Your task to perform on an android device: Go to privacy settings Image 0: 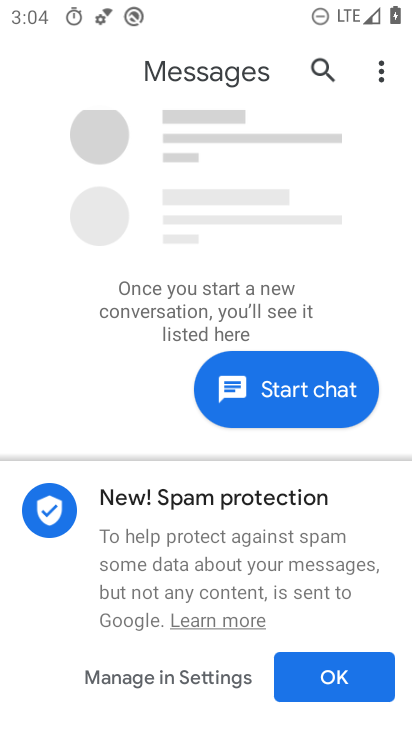
Step 0: press back button
Your task to perform on an android device: Go to privacy settings Image 1: 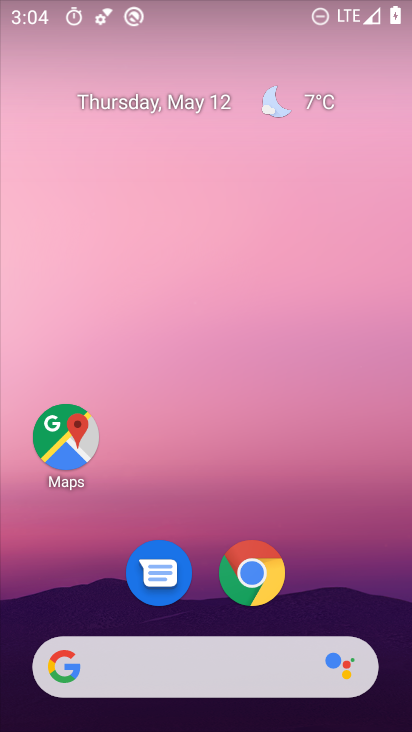
Step 1: drag from (341, 596) to (401, 527)
Your task to perform on an android device: Go to privacy settings Image 2: 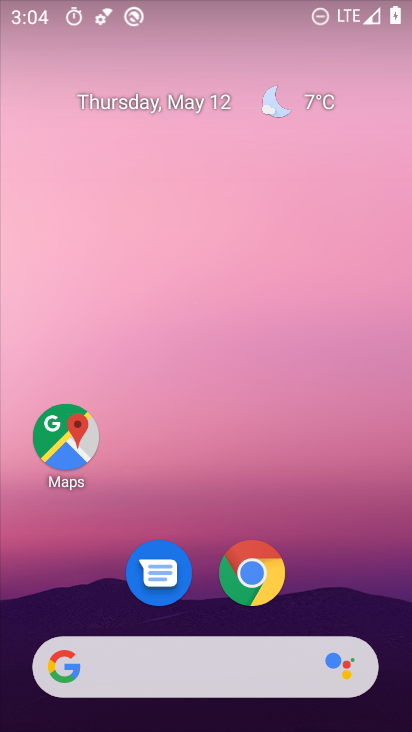
Step 2: drag from (309, 587) to (73, 4)
Your task to perform on an android device: Go to privacy settings Image 3: 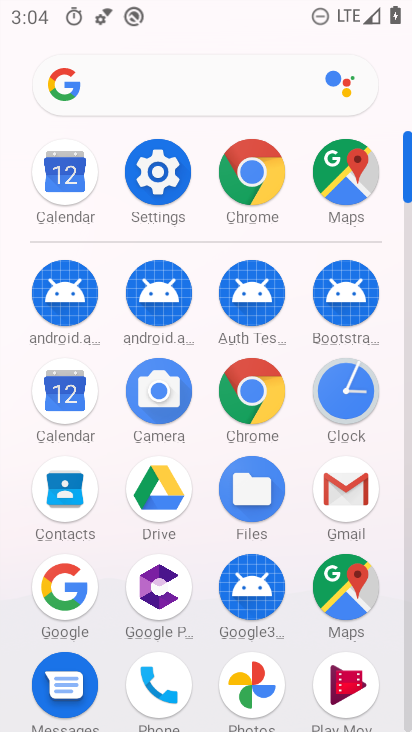
Step 3: click (154, 169)
Your task to perform on an android device: Go to privacy settings Image 4: 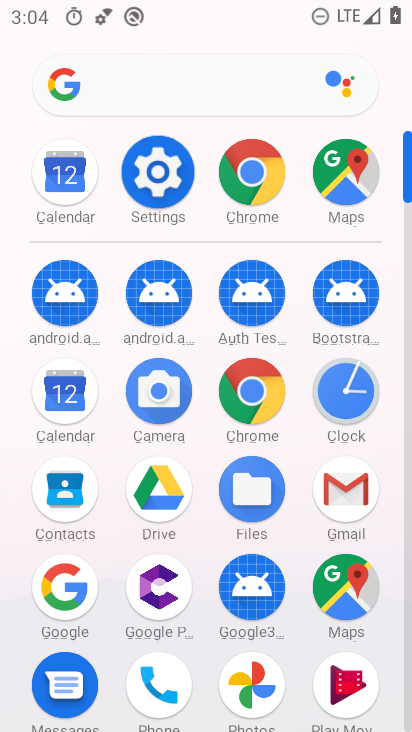
Step 4: click (155, 169)
Your task to perform on an android device: Go to privacy settings Image 5: 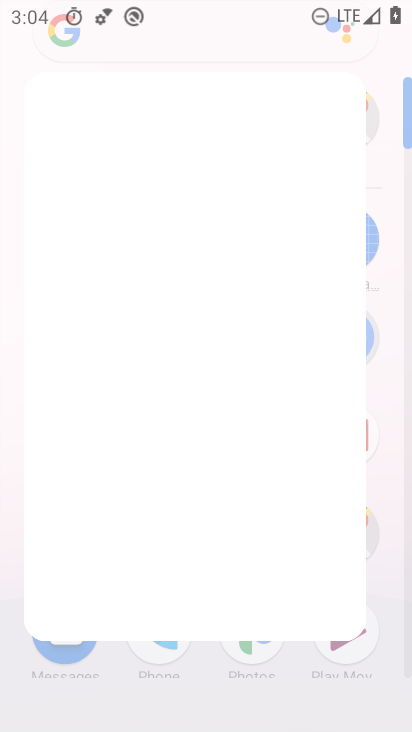
Step 5: click (155, 169)
Your task to perform on an android device: Go to privacy settings Image 6: 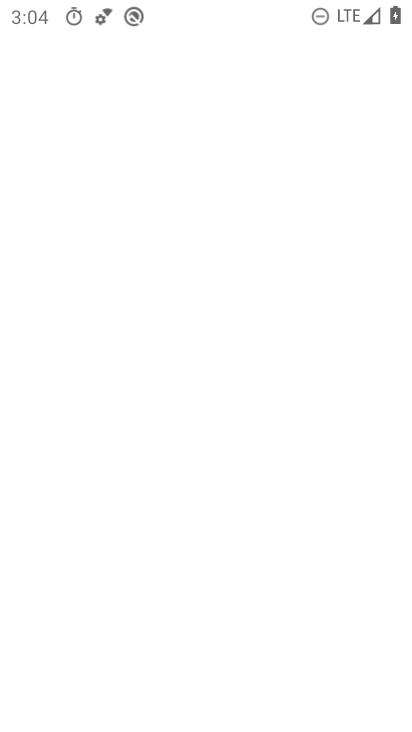
Step 6: click (155, 169)
Your task to perform on an android device: Go to privacy settings Image 7: 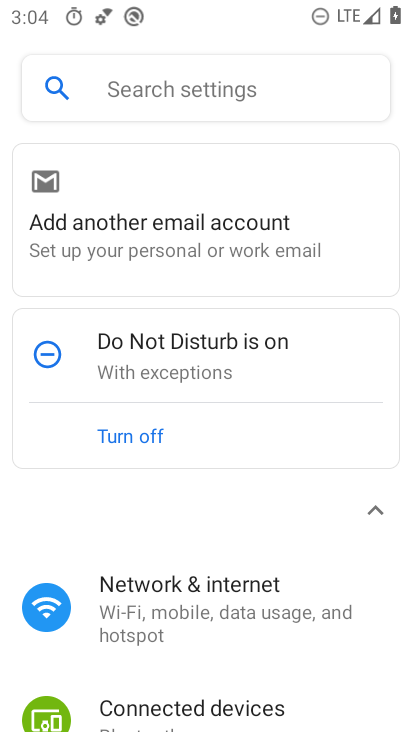
Step 7: drag from (207, 654) to (164, 178)
Your task to perform on an android device: Go to privacy settings Image 8: 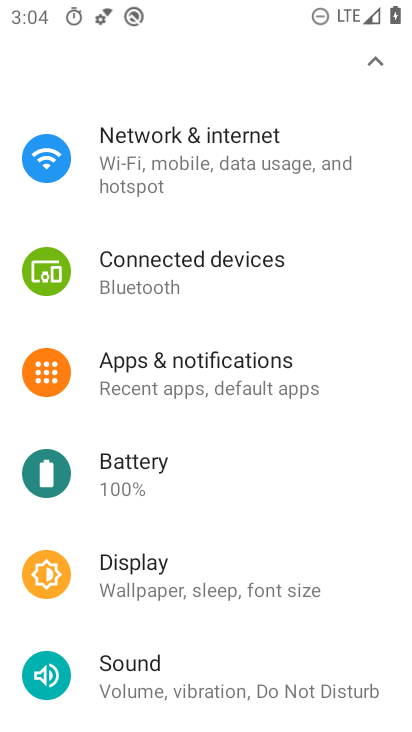
Step 8: drag from (175, 582) to (189, 175)
Your task to perform on an android device: Go to privacy settings Image 9: 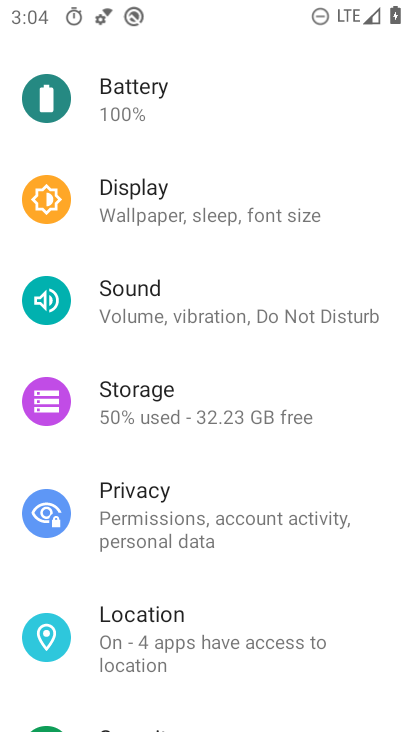
Step 9: drag from (254, 567) to (248, 234)
Your task to perform on an android device: Go to privacy settings Image 10: 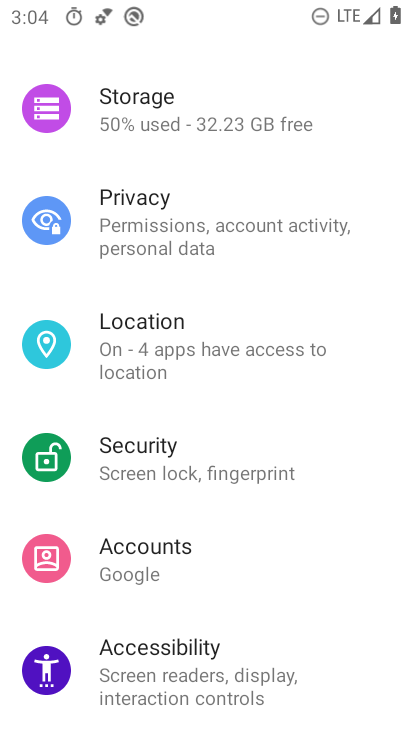
Step 10: click (136, 223)
Your task to perform on an android device: Go to privacy settings Image 11: 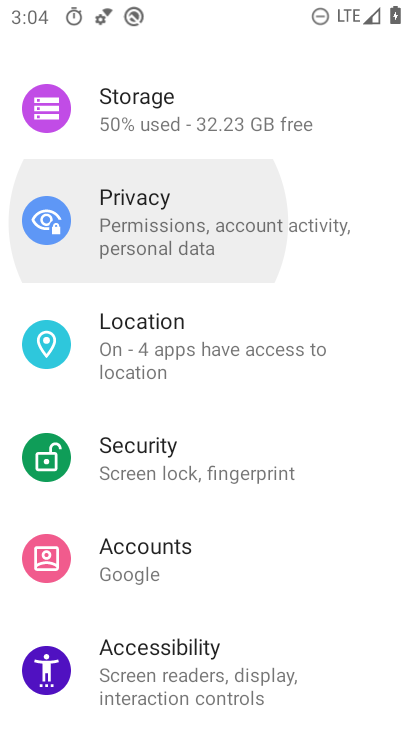
Step 11: click (138, 224)
Your task to perform on an android device: Go to privacy settings Image 12: 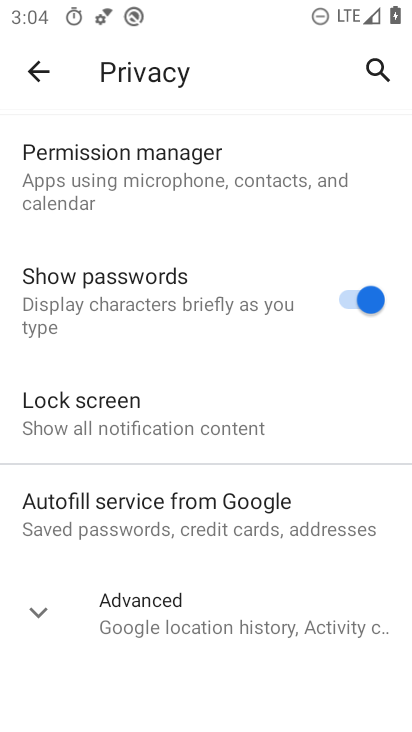
Step 12: drag from (246, 522) to (181, 176)
Your task to perform on an android device: Go to privacy settings Image 13: 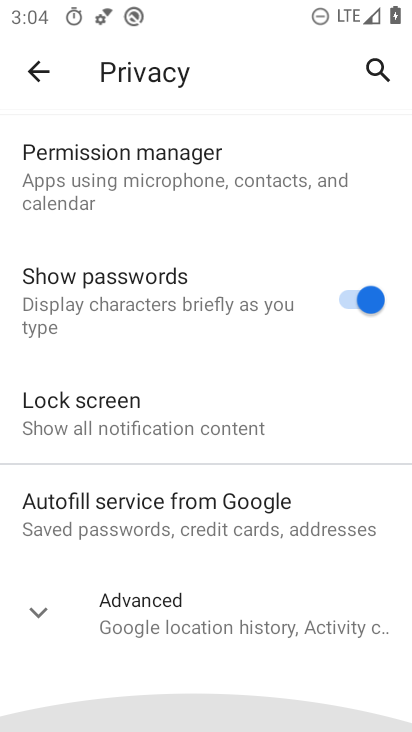
Step 13: drag from (263, 494) to (188, 180)
Your task to perform on an android device: Go to privacy settings Image 14: 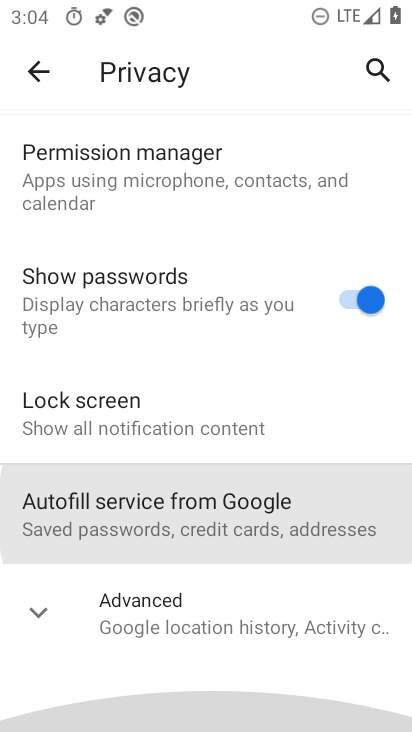
Step 14: click (158, 258)
Your task to perform on an android device: Go to privacy settings Image 15: 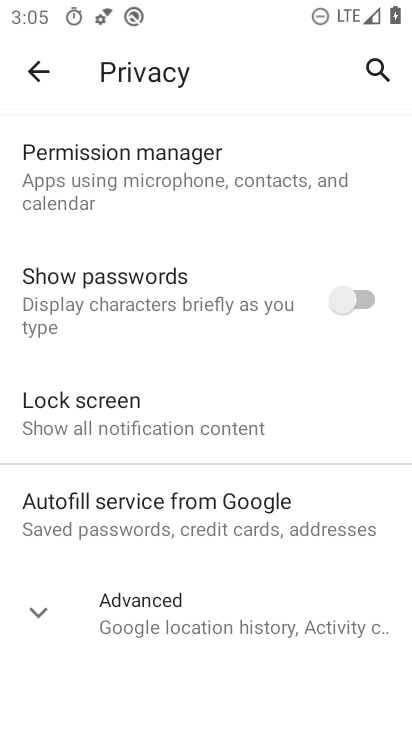
Step 15: task complete